Your task to perform on an android device: toggle translation in the chrome app Image 0: 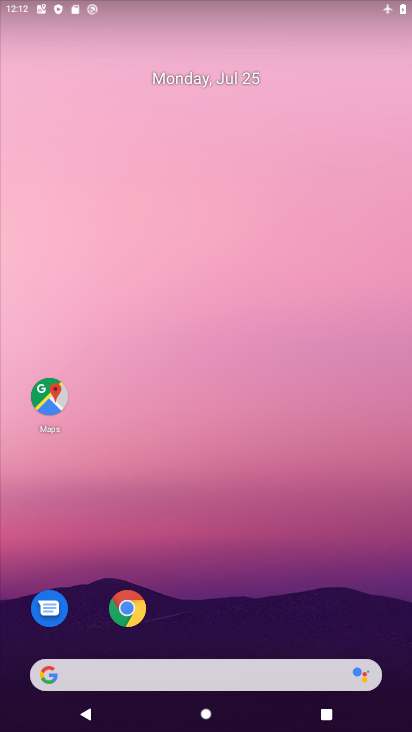
Step 0: click (131, 613)
Your task to perform on an android device: toggle translation in the chrome app Image 1: 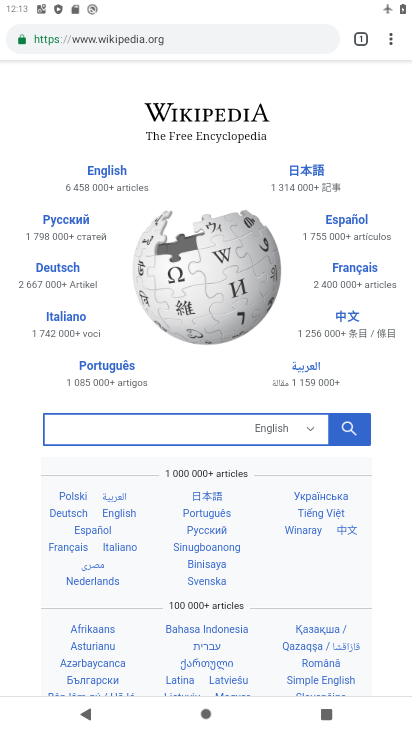
Step 1: drag from (391, 39) to (250, 432)
Your task to perform on an android device: toggle translation in the chrome app Image 2: 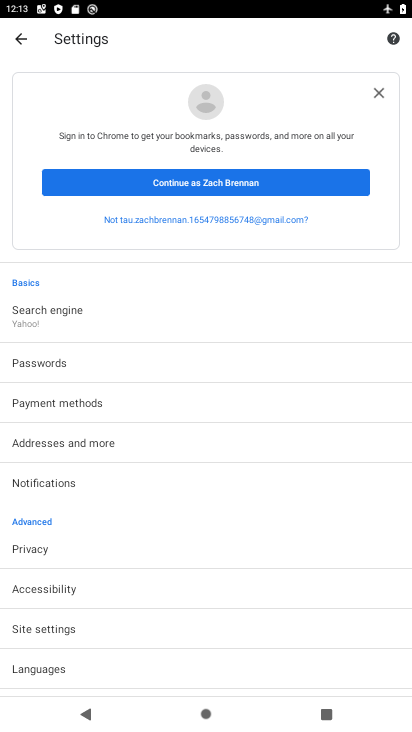
Step 2: drag from (129, 621) to (155, 391)
Your task to perform on an android device: toggle translation in the chrome app Image 3: 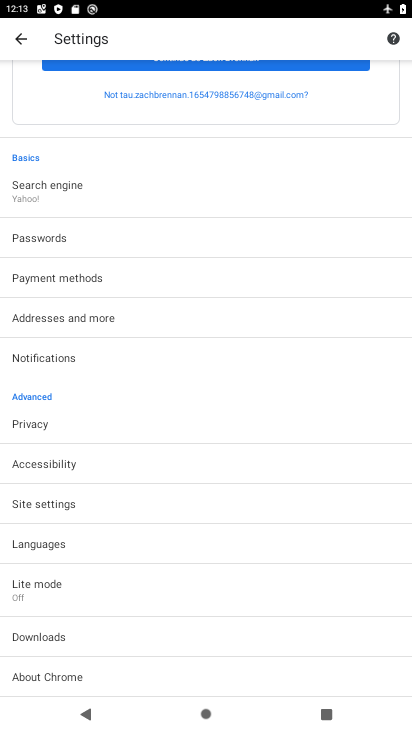
Step 3: click (48, 541)
Your task to perform on an android device: toggle translation in the chrome app Image 4: 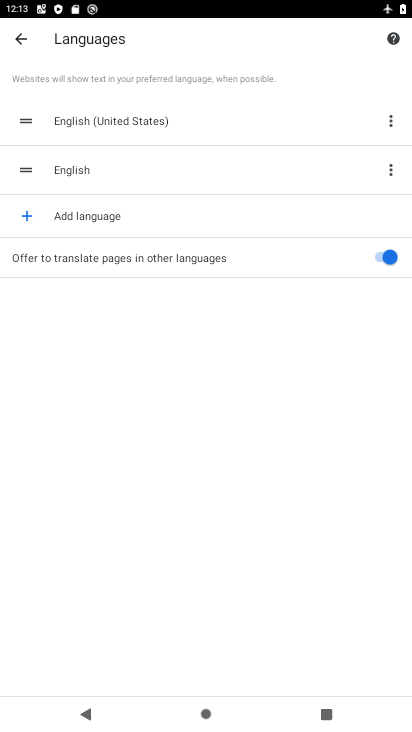
Step 4: click (405, 261)
Your task to perform on an android device: toggle translation in the chrome app Image 5: 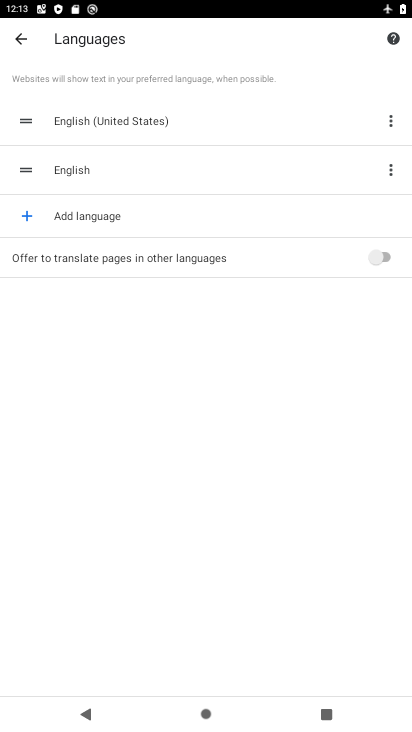
Step 5: task complete